Your task to perform on an android device: turn off airplane mode Image 0: 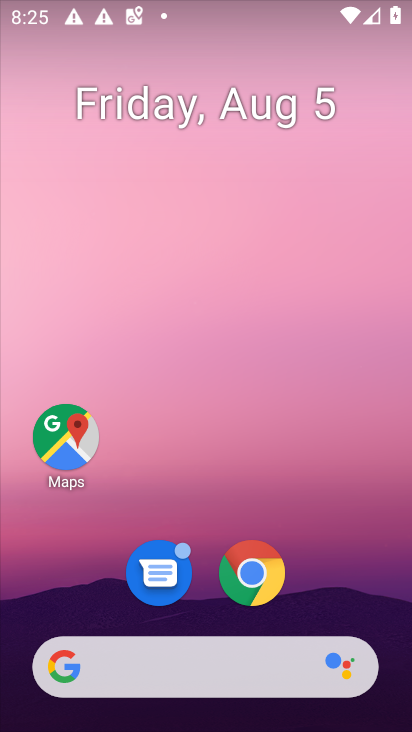
Step 0: drag from (200, 686) to (246, 156)
Your task to perform on an android device: turn off airplane mode Image 1: 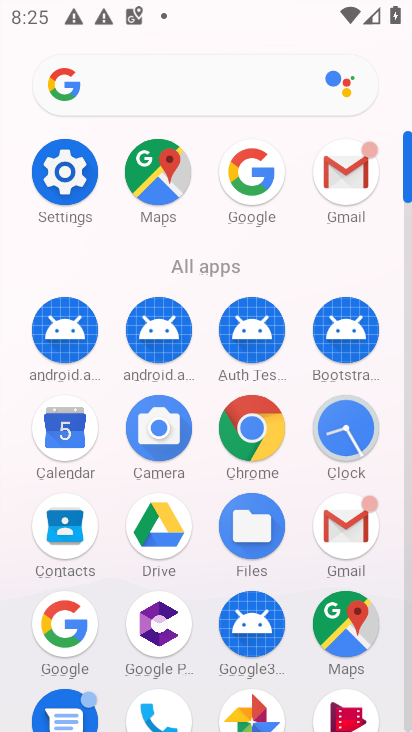
Step 1: click (64, 175)
Your task to perform on an android device: turn off airplane mode Image 2: 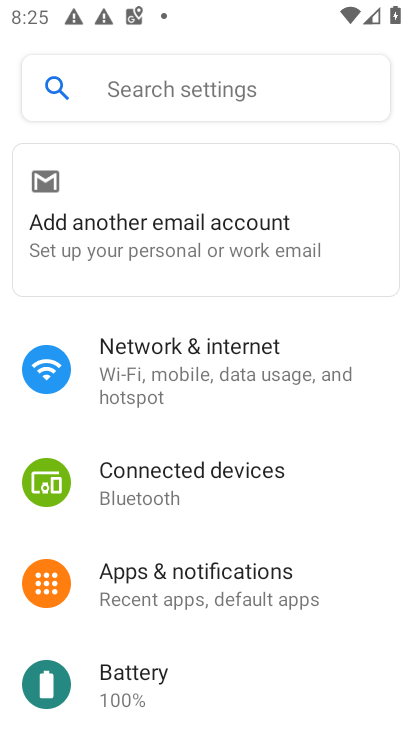
Step 2: click (177, 371)
Your task to perform on an android device: turn off airplane mode Image 3: 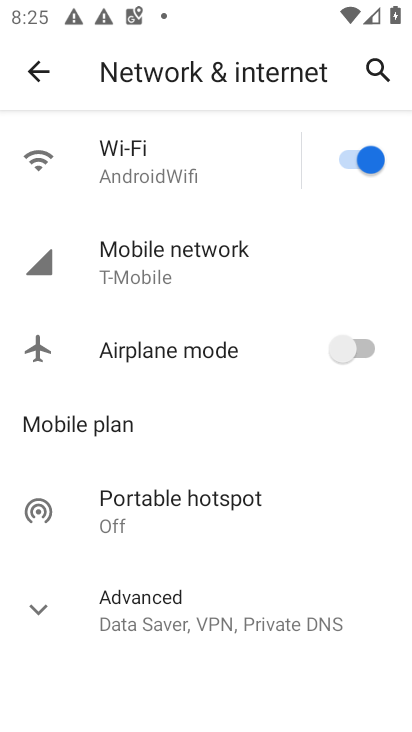
Step 3: task complete